Your task to perform on an android device: set the timer Image 0: 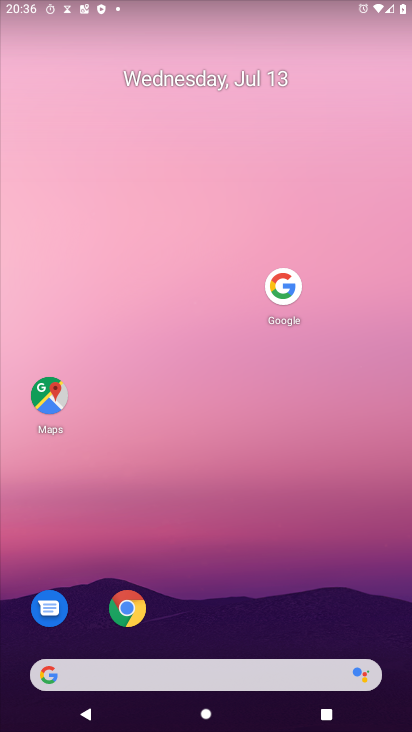
Step 0: drag from (183, 650) to (167, 128)
Your task to perform on an android device: set the timer Image 1: 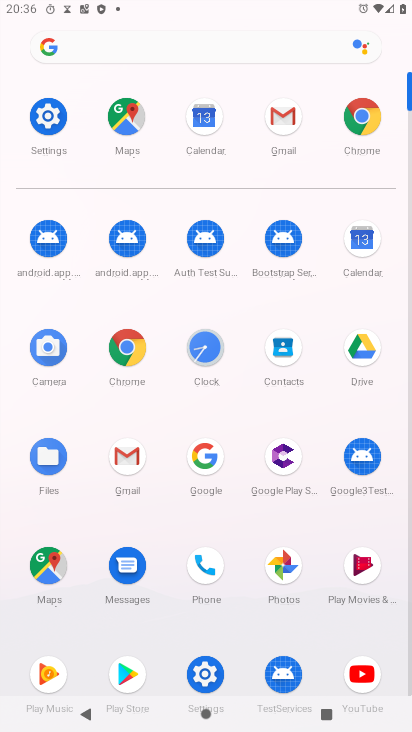
Step 1: click (216, 343)
Your task to perform on an android device: set the timer Image 2: 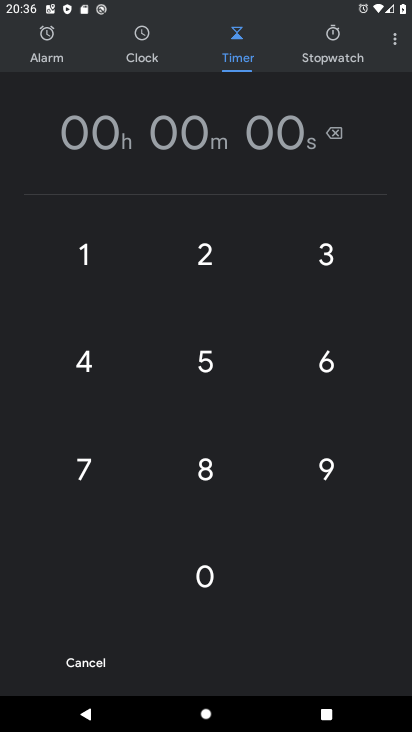
Step 2: click (211, 246)
Your task to perform on an android device: set the timer Image 3: 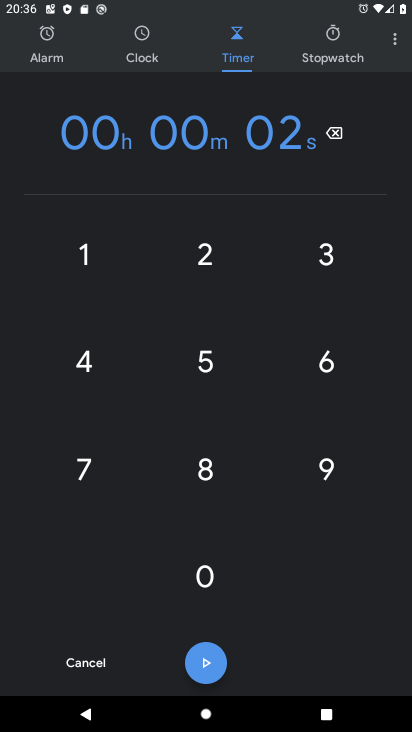
Step 3: click (209, 278)
Your task to perform on an android device: set the timer Image 4: 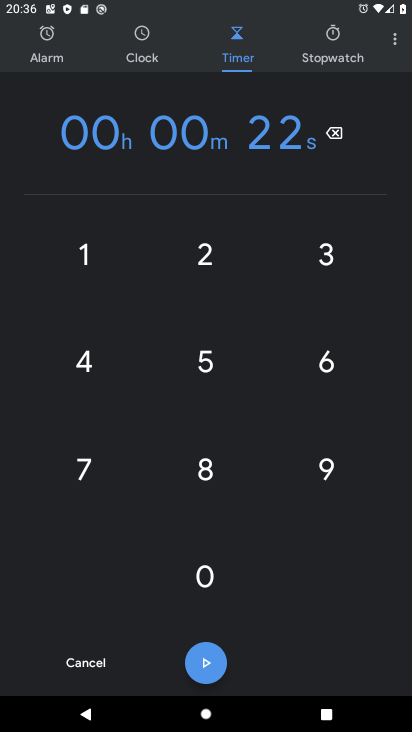
Step 4: click (196, 673)
Your task to perform on an android device: set the timer Image 5: 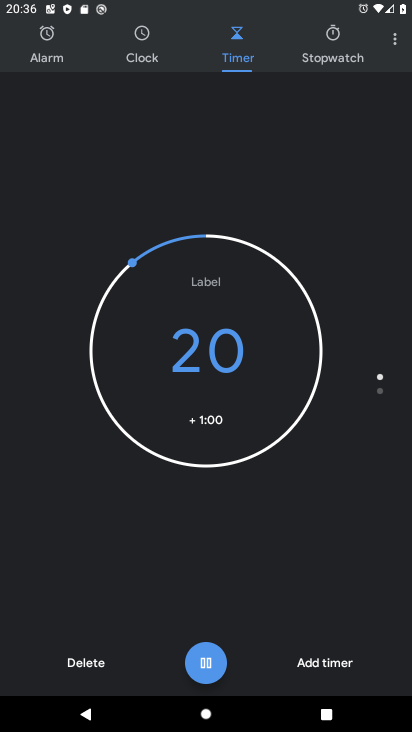
Step 5: task complete